Your task to perform on an android device: Search for Mexican restaurants on Maps Image 0: 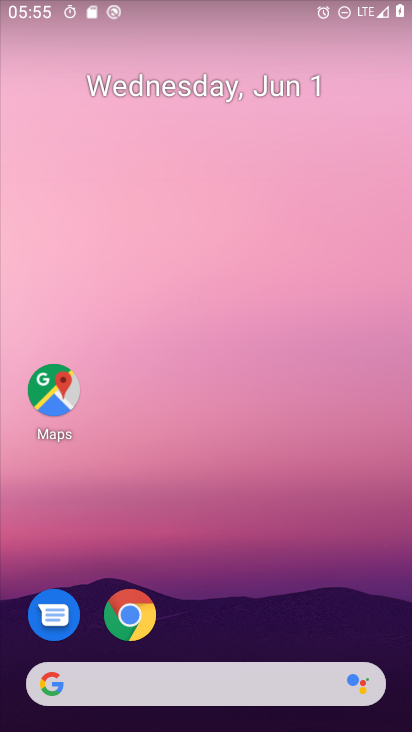
Step 0: drag from (338, 4) to (284, 4)
Your task to perform on an android device: Search for Mexican restaurants on Maps Image 1: 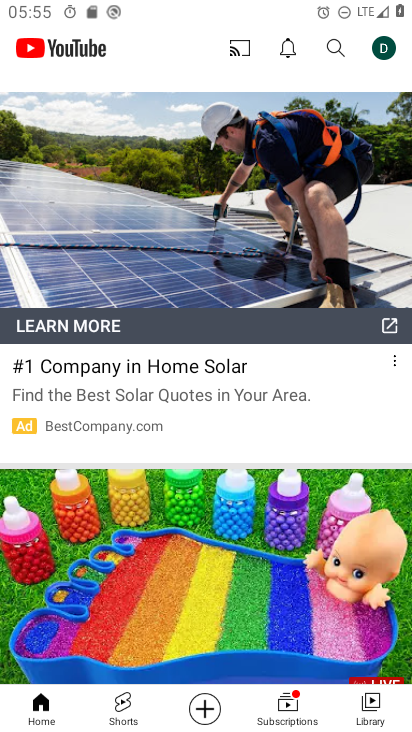
Step 1: press home button
Your task to perform on an android device: Search for Mexican restaurants on Maps Image 2: 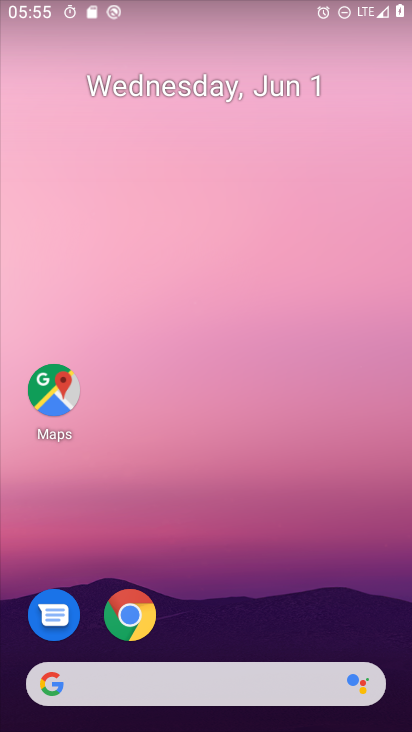
Step 2: drag from (308, 665) to (335, 15)
Your task to perform on an android device: Search for Mexican restaurants on Maps Image 3: 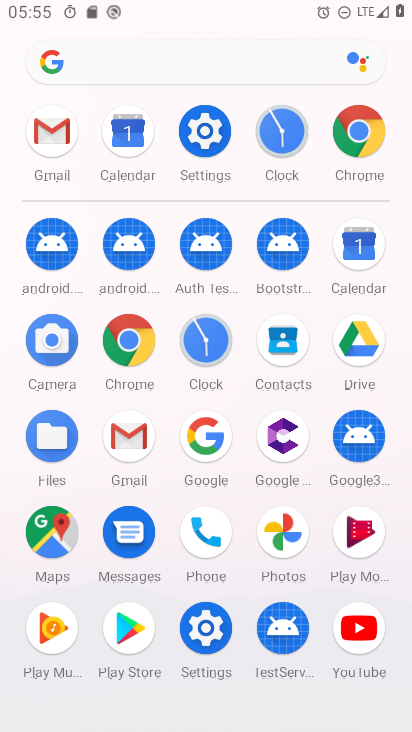
Step 3: click (41, 525)
Your task to perform on an android device: Search for Mexican restaurants on Maps Image 4: 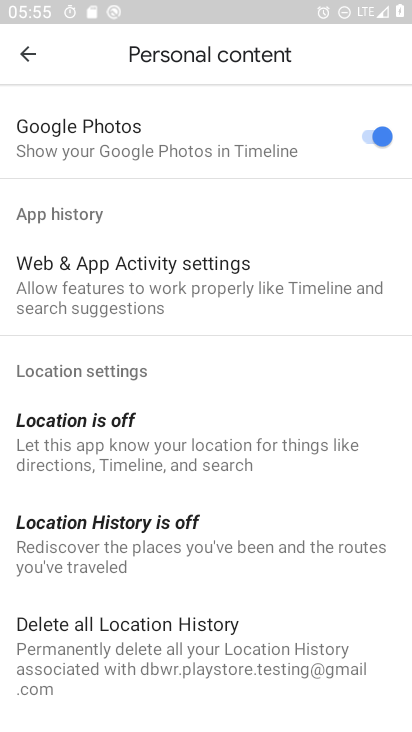
Step 4: press back button
Your task to perform on an android device: Search for Mexican restaurants on Maps Image 5: 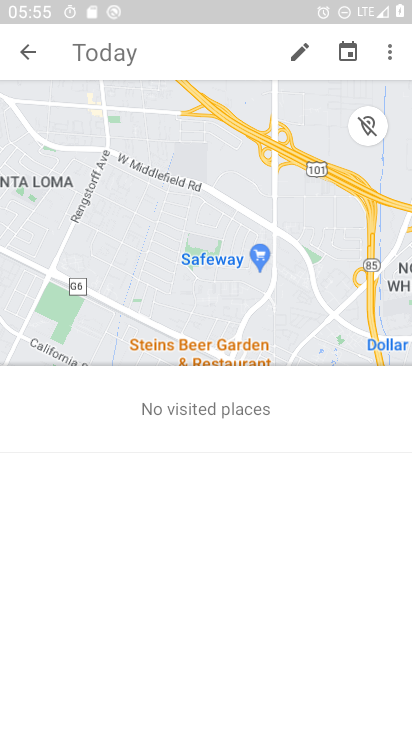
Step 5: press back button
Your task to perform on an android device: Search for Mexican restaurants on Maps Image 6: 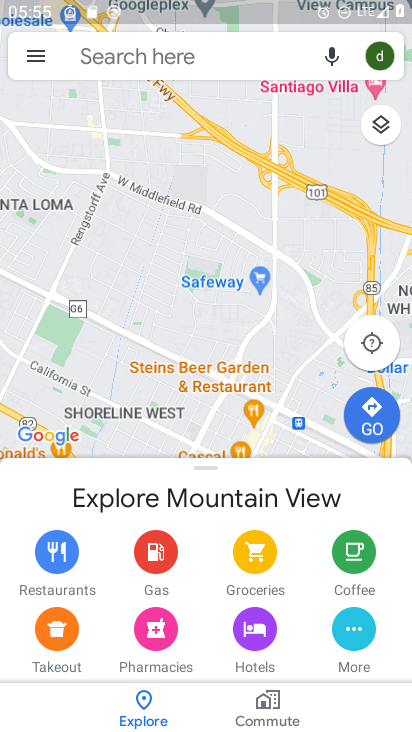
Step 6: click (232, 56)
Your task to perform on an android device: Search for Mexican restaurants on Maps Image 7: 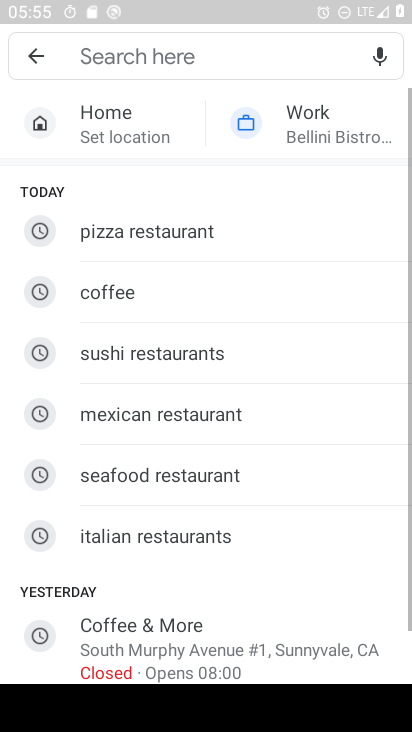
Step 7: click (315, 418)
Your task to perform on an android device: Search for Mexican restaurants on Maps Image 8: 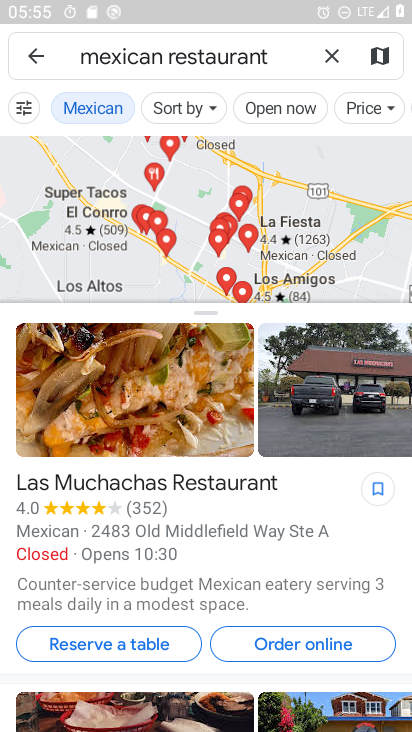
Step 8: task complete